Your task to perform on an android device: open chrome privacy settings Image 0: 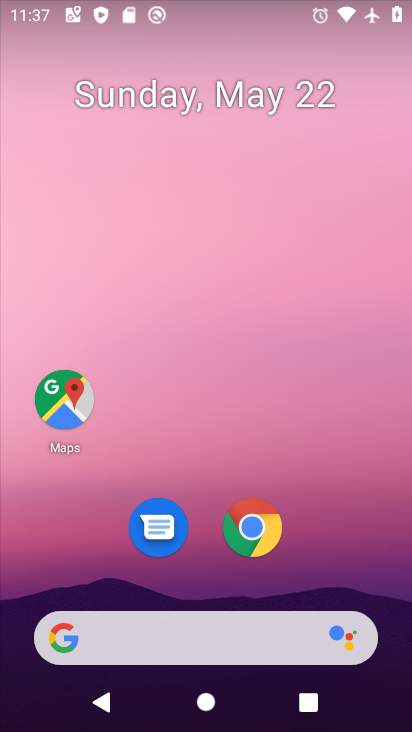
Step 0: click (264, 539)
Your task to perform on an android device: open chrome privacy settings Image 1: 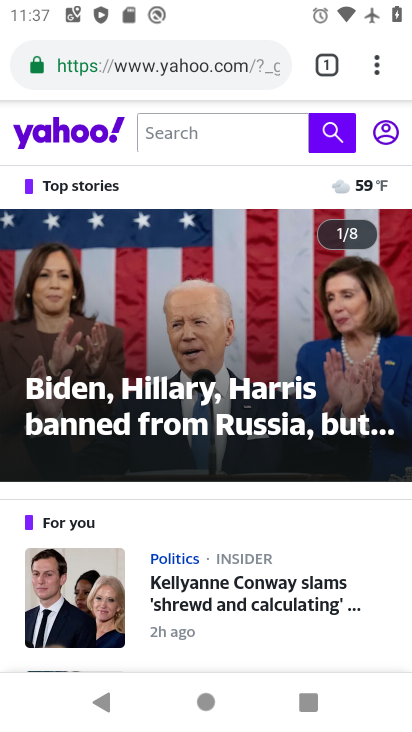
Step 1: click (384, 57)
Your task to perform on an android device: open chrome privacy settings Image 2: 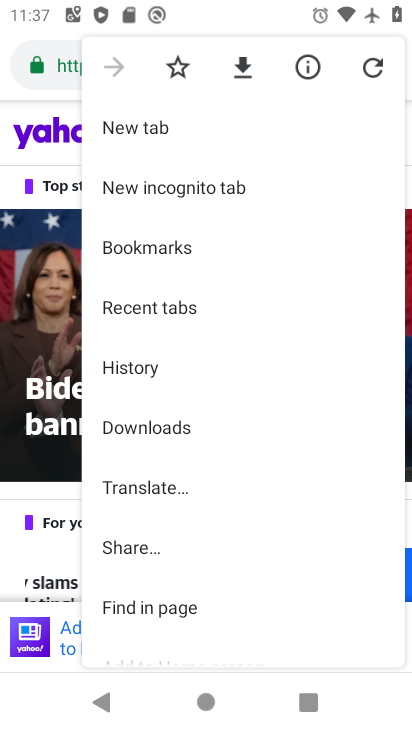
Step 2: drag from (177, 575) to (177, 524)
Your task to perform on an android device: open chrome privacy settings Image 3: 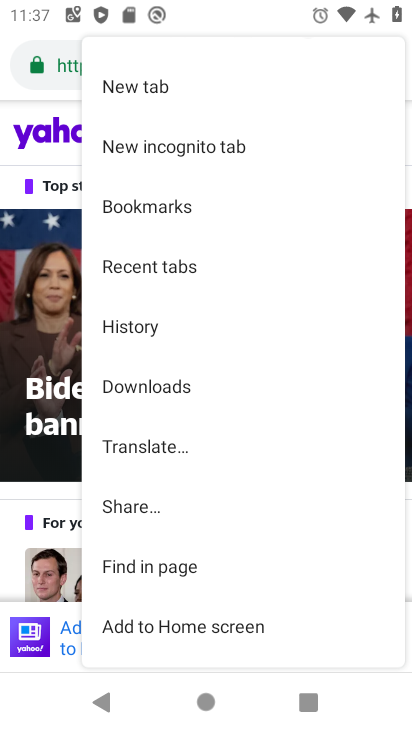
Step 3: drag from (190, 624) to (192, 155)
Your task to perform on an android device: open chrome privacy settings Image 4: 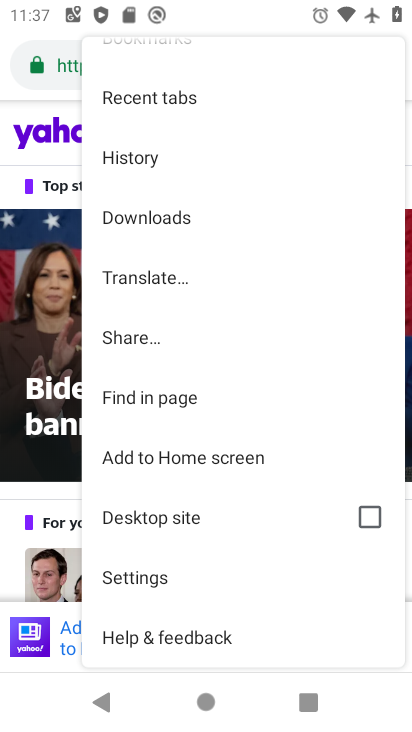
Step 4: click (162, 583)
Your task to perform on an android device: open chrome privacy settings Image 5: 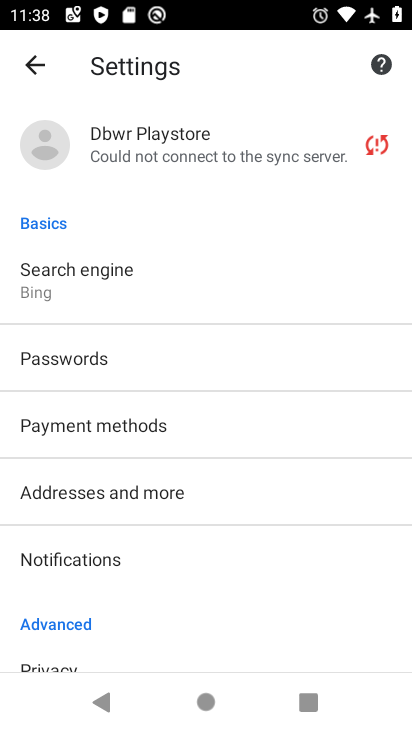
Step 5: drag from (193, 466) to (194, 358)
Your task to perform on an android device: open chrome privacy settings Image 6: 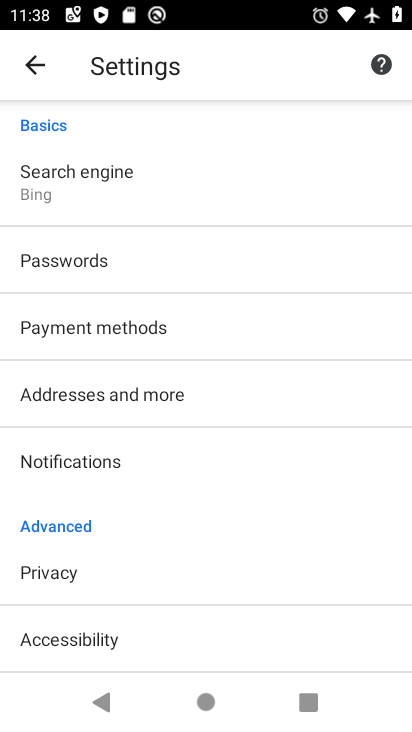
Step 6: click (113, 545)
Your task to perform on an android device: open chrome privacy settings Image 7: 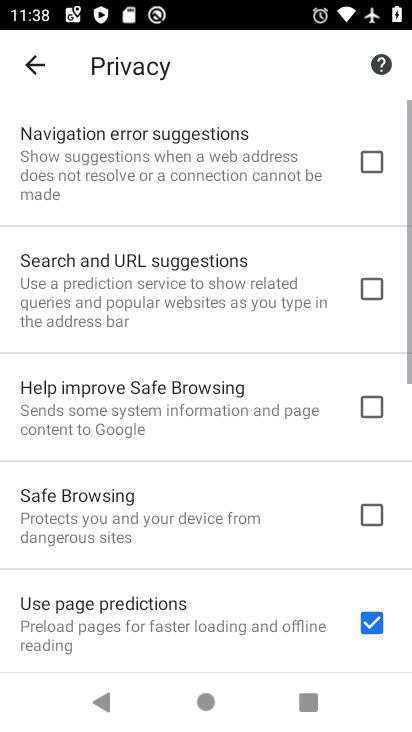
Step 7: task complete